Your task to perform on an android device: Search for sushi restaurants on Maps Image 0: 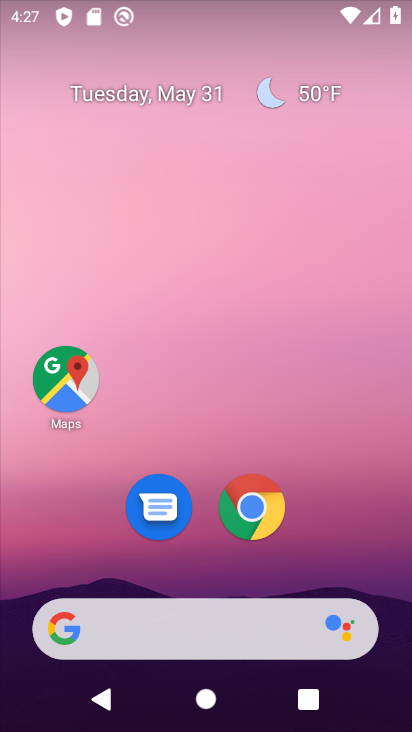
Step 0: click (71, 378)
Your task to perform on an android device: Search for sushi restaurants on Maps Image 1: 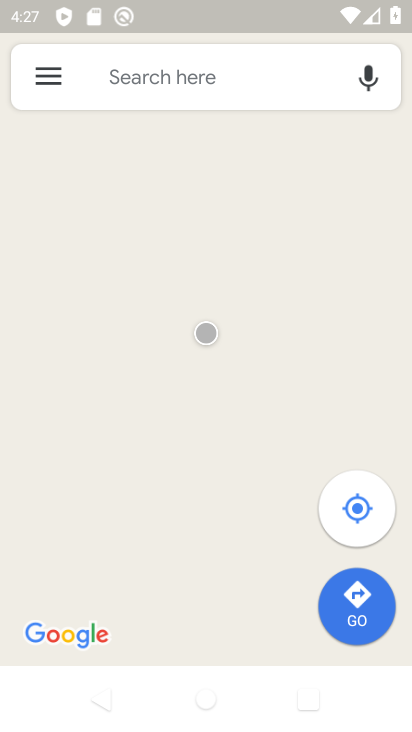
Step 1: click (135, 63)
Your task to perform on an android device: Search for sushi restaurants on Maps Image 2: 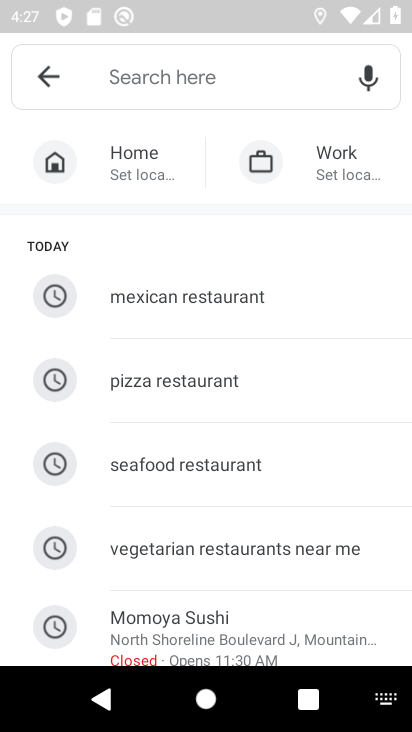
Step 2: drag from (291, 569) to (325, 666)
Your task to perform on an android device: Search for sushi restaurants on Maps Image 3: 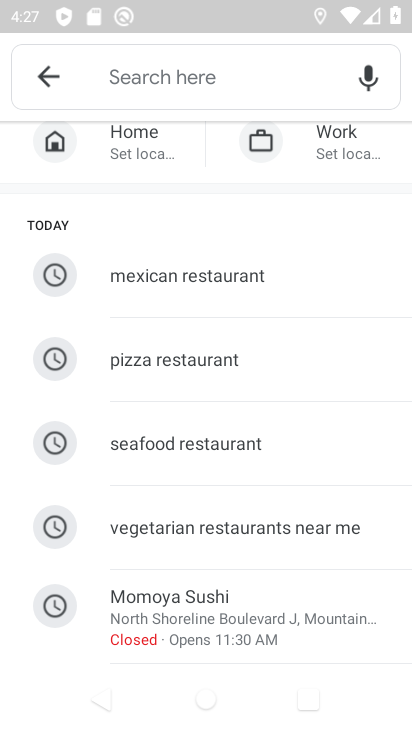
Step 3: click (209, 56)
Your task to perform on an android device: Search for sushi restaurants on Maps Image 4: 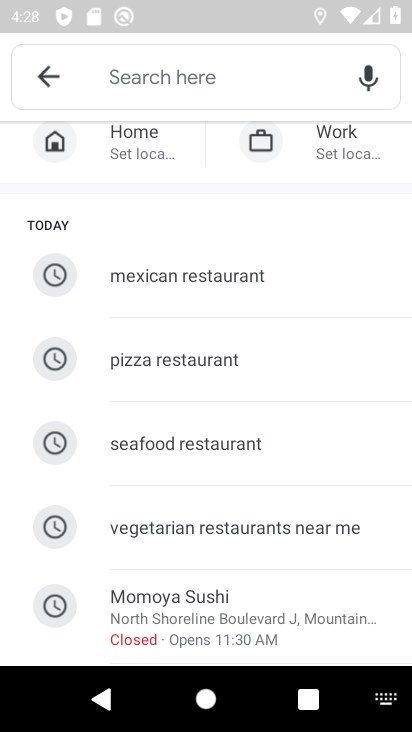
Step 4: type "sushi"
Your task to perform on an android device: Search for sushi restaurants on Maps Image 5: 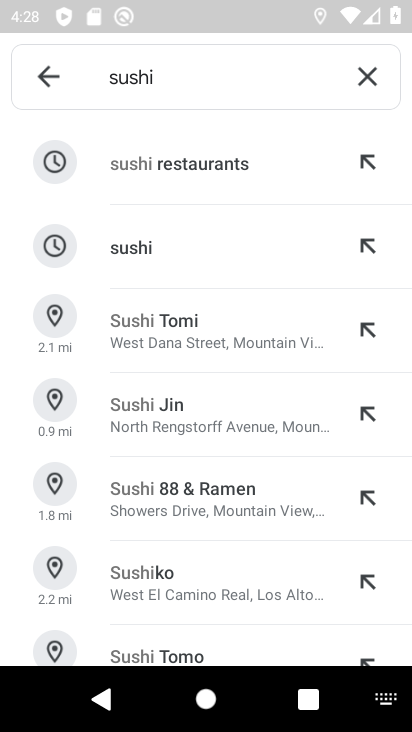
Step 5: click (244, 160)
Your task to perform on an android device: Search for sushi restaurants on Maps Image 6: 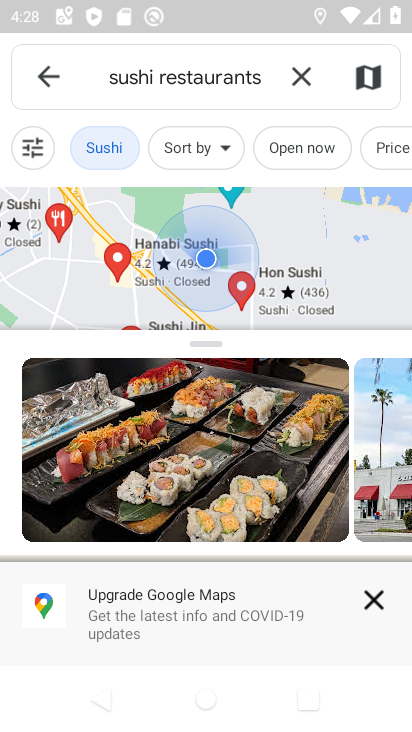
Step 6: task complete